Your task to perform on an android device: Turn on the flashlight Image 0: 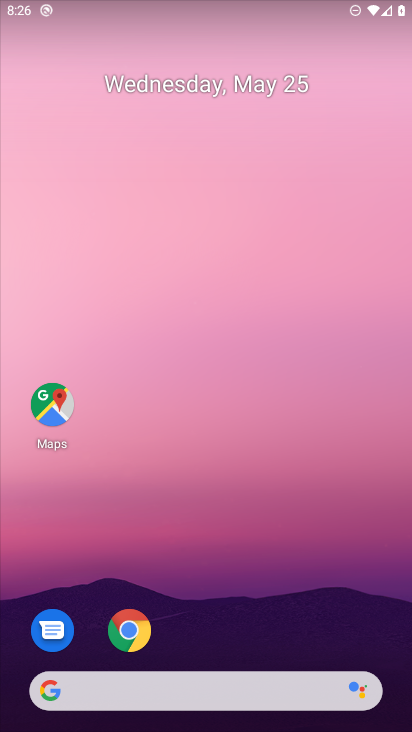
Step 0: drag from (189, 675) to (229, 271)
Your task to perform on an android device: Turn on the flashlight Image 1: 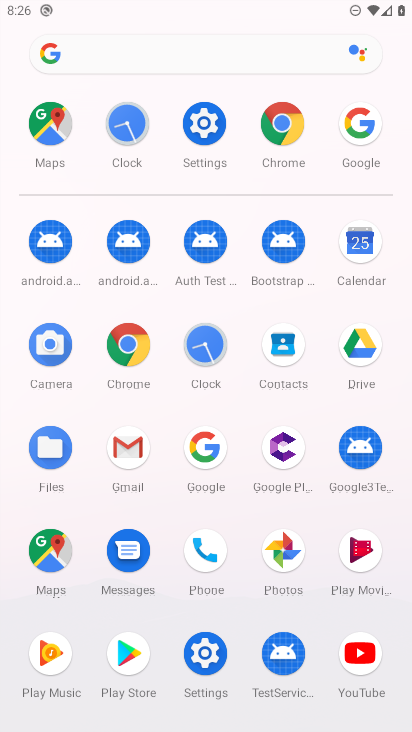
Step 1: drag from (234, 0) to (242, 393)
Your task to perform on an android device: Turn on the flashlight Image 2: 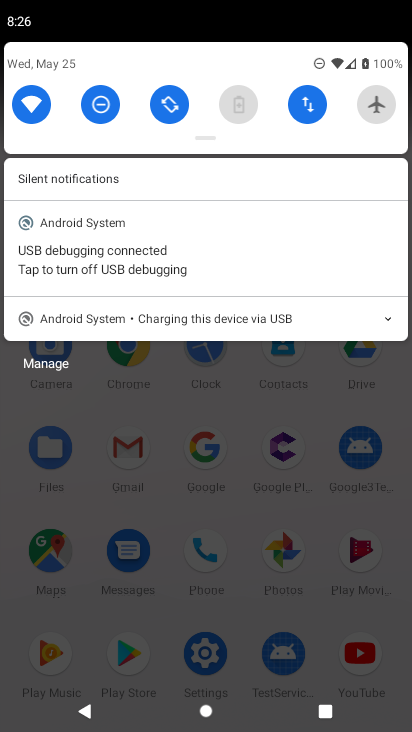
Step 2: drag from (239, 94) to (243, 458)
Your task to perform on an android device: Turn on the flashlight Image 3: 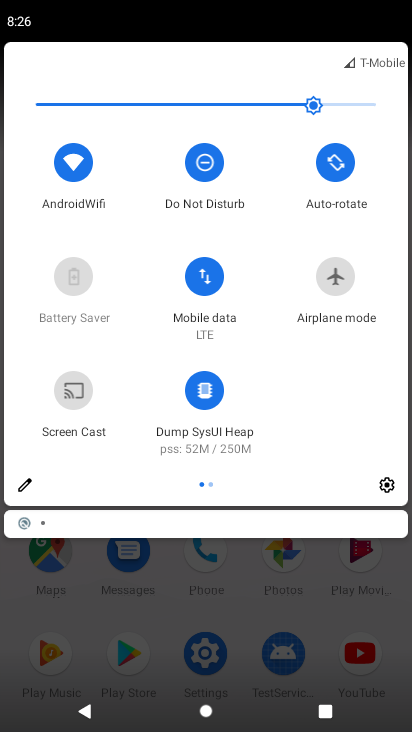
Step 3: drag from (385, 390) to (0, 493)
Your task to perform on an android device: Turn on the flashlight Image 4: 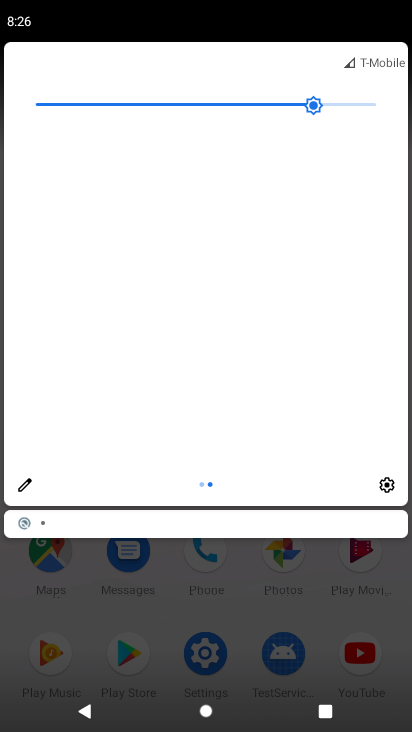
Step 4: click (22, 486)
Your task to perform on an android device: Turn on the flashlight Image 5: 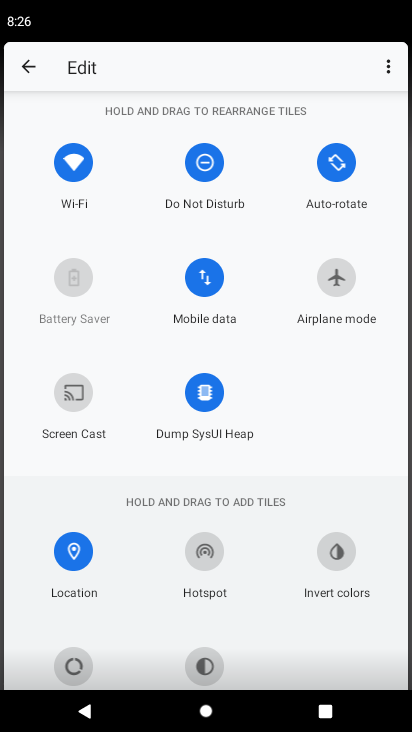
Step 5: task complete